Your task to perform on an android device: check battery use Image 0: 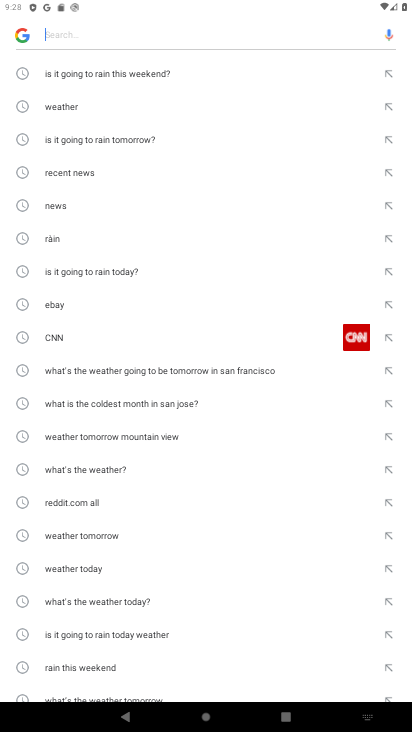
Step 0: press back button
Your task to perform on an android device: check battery use Image 1: 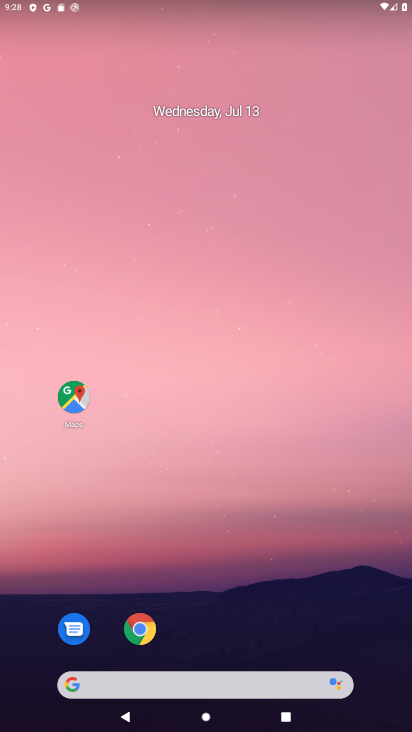
Step 1: drag from (202, 674) to (267, 159)
Your task to perform on an android device: check battery use Image 2: 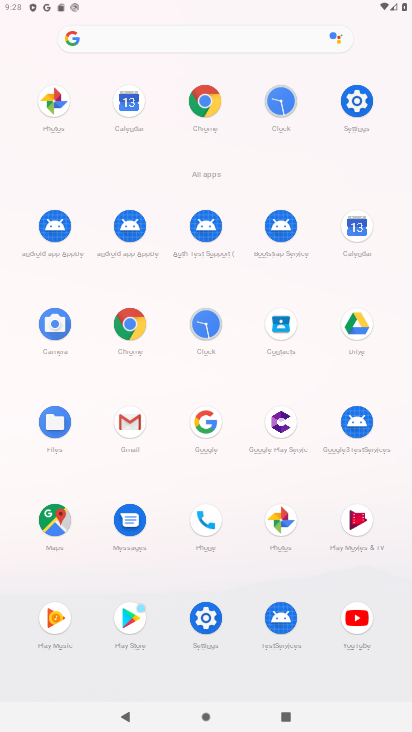
Step 2: click (364, 106)
Your task to perform on an android device: check battery use Image 3: 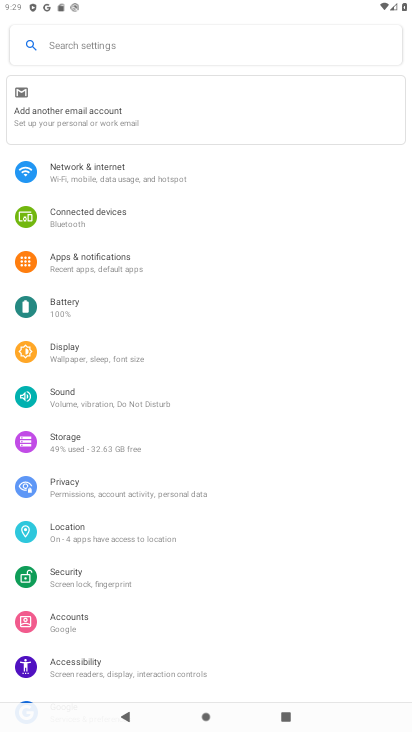
Step 3: click (119, 295)
Your task to perform on an android device: check battery use Image 4: 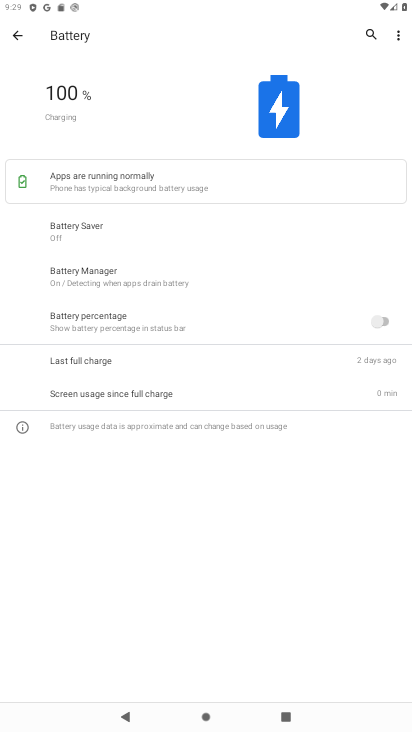
Step 4: task complete